Your task to perform on an android device: search for starred emails in the gmail app Image 0: 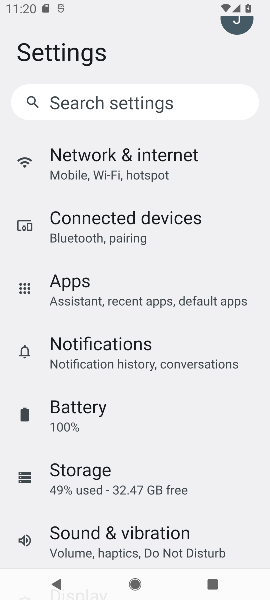
Step 0: press home button
Your task to perform on an android device: search for starred emails in the gmail app Image 1: 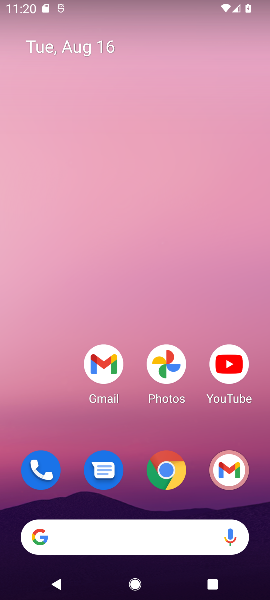
Step 1: click (102, 364)
Your task to perform on an android device: search for starred emails in the gmail app Image 2: 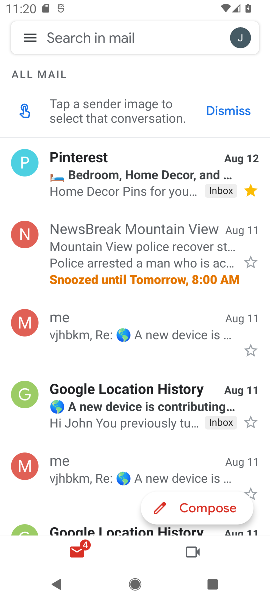
Step 2: click (29, 37)
Your task to perform on an android device: search for starred emails in the gmail app Image 3: 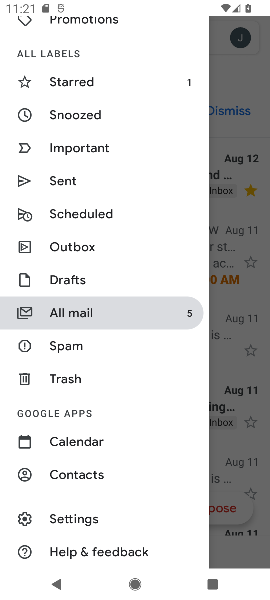
Step 3: click (63, 79)
Your task to perform on an android device: search for starred emails in the gmail app Image 4: 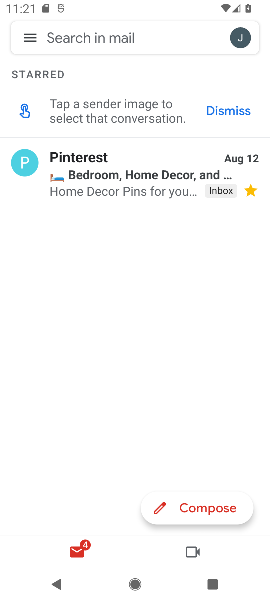
Step 4: task complete